Your task to perform on an android device: Open Google Maps and go to "Timeline" Image 0: 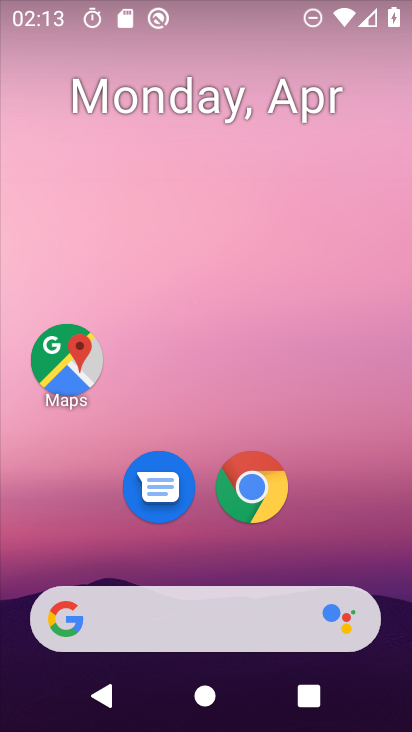
Step 0: drag from (350, 654) to (374, 308)
Your task to perform on an android device: Open Google Maps and go to "Timeline" Image 1: 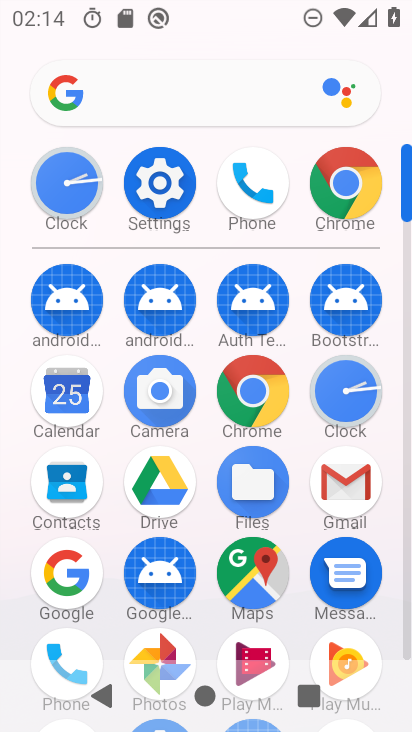
Step 1: click (246, 567)
Your task to perform on an android device: Open Google Maps and go to "Timeline" Image 2: 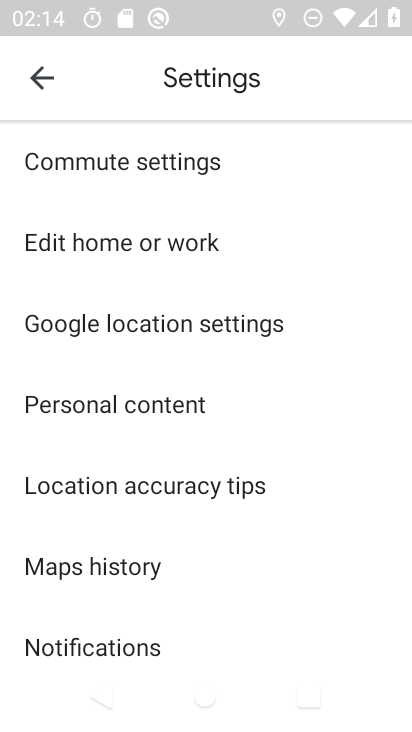
Step 2: click (32, 87)
Your task to perform on an android device: Open Google Maps and go to "Timeline" Image 3: 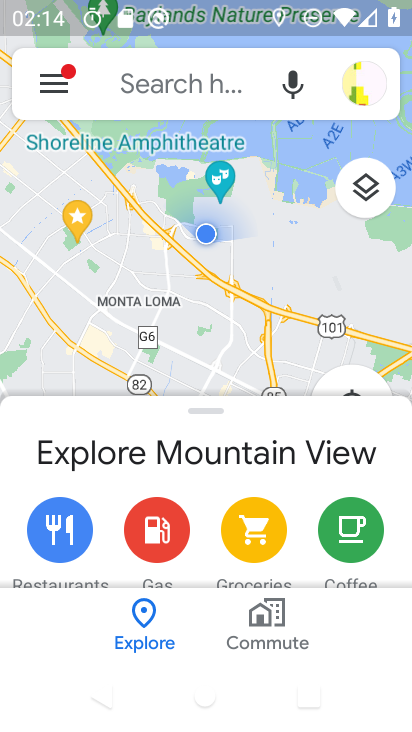
Step 3: click (59, 87)
Your task to perform on an android device: Open Google Maps and go to "Timeline" Image 4: 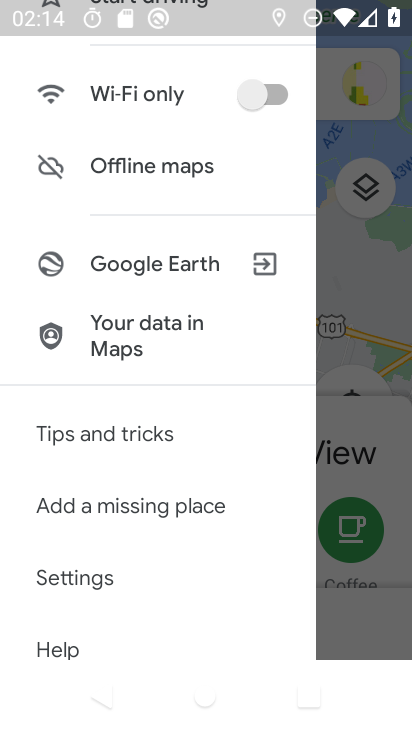
Step 4: drag from (129, 183) to (65, 673)
Your task to perform on an android device: Open Google Maps and go to "Timeline" Image 5: 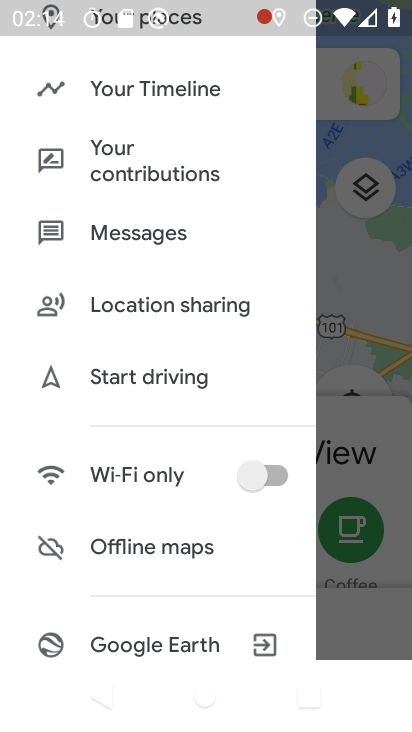
Step 5: click (163, 95)
Your task to perform on an android device: Open Google Maps and go to "Timeline" Image 6: 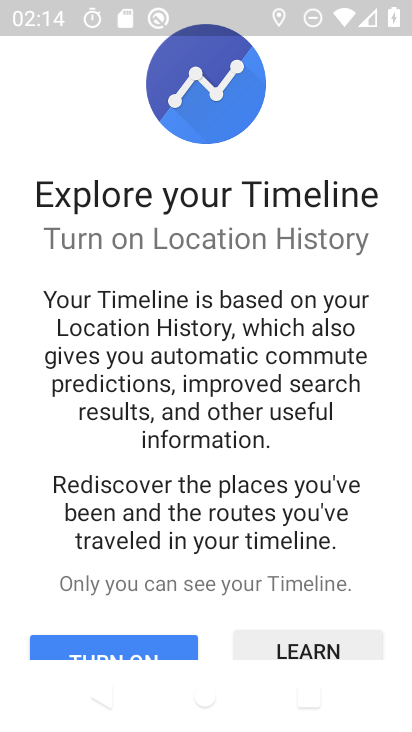
Step 6: click (91, 646)
Your task to perform on an android device: Open Google Maps and go to "Timeline" Image 7: 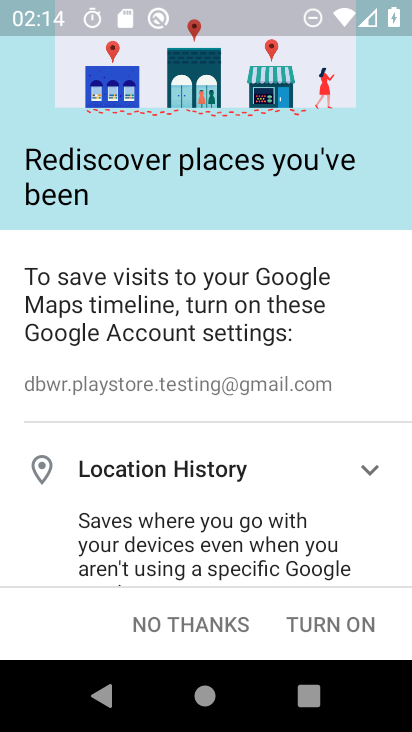
Step 7: click (168, 630)
Your task to perform on an android device: Open Google Maps and go to "Timeline" Image 8: 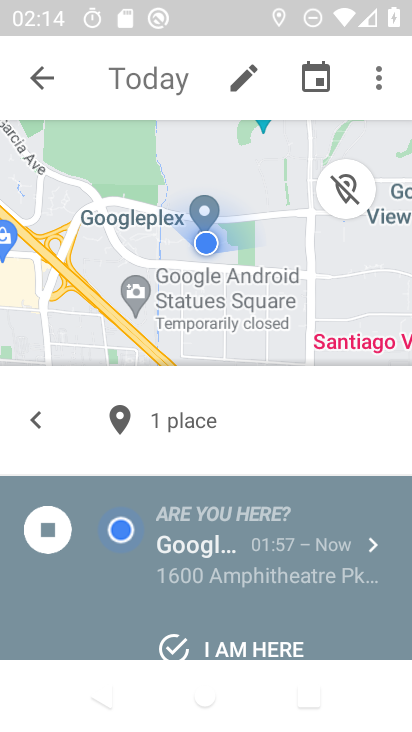
Step 8: task complete